Your task to perform on an android device: change the clock display to digital Image 0: 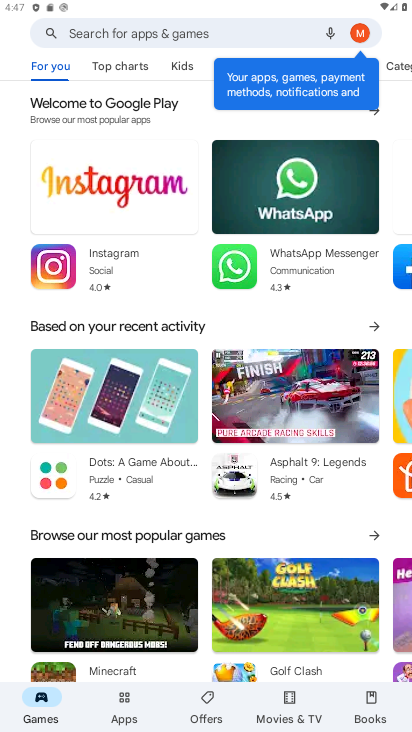
Step 0: press home button
Your task to perform on an android device: change the clock display to digital Image 1: 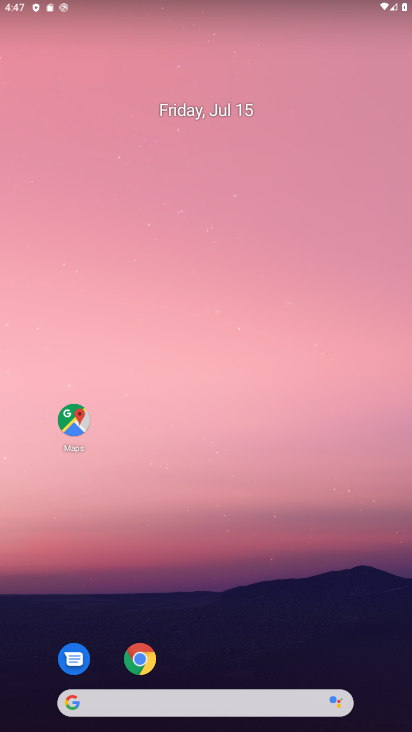
Step 1: drag from (338, 657) to (200, 77)
Your task to perform on an android device: change the clock display to digital Image 2: 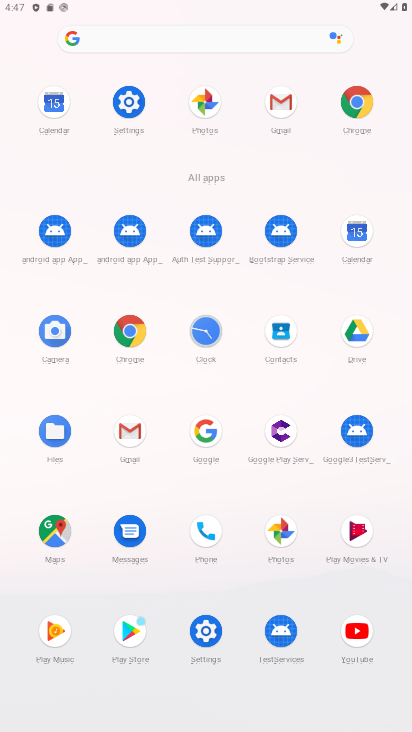
Step 2: click (213, 333)
Your task to perform on an android device: change the clock display to digital Image 3: 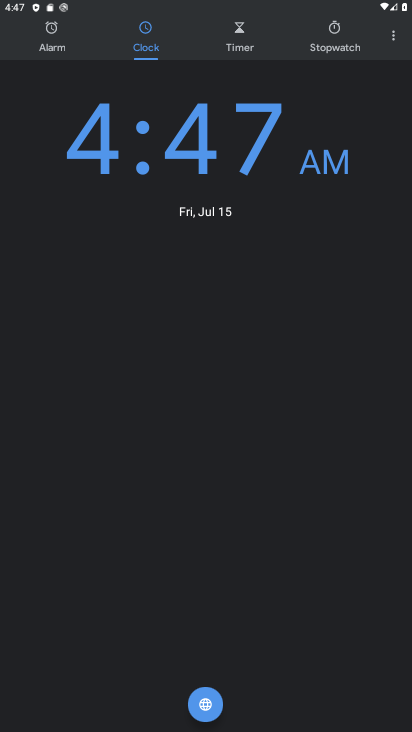
Step 3: click (402, 41)
Your task to perform on an android device: change the clock display to digital Image 4: 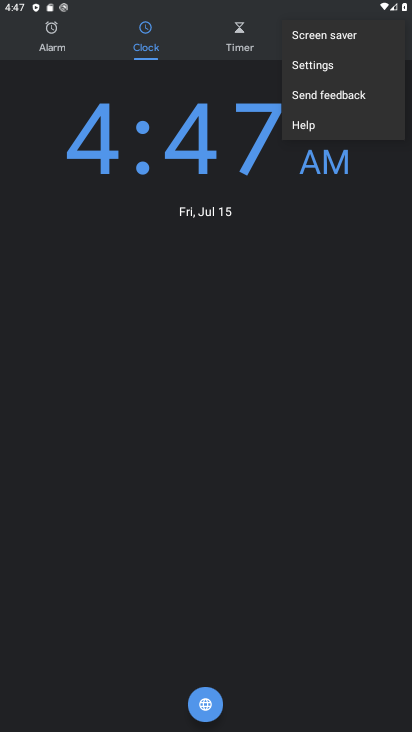
Step 4: click (364, 63)
Your task to perform on an android device: change the clock display to digital Image 5: 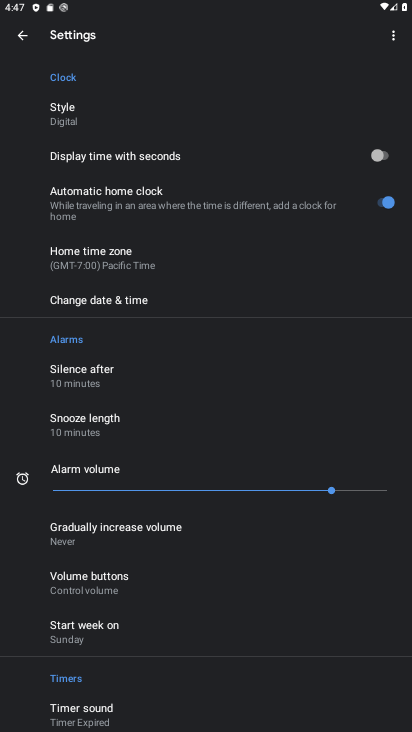
Step 5: click (108, 121)
Your task to perform on an android device: change the clock display to digital Image 6: 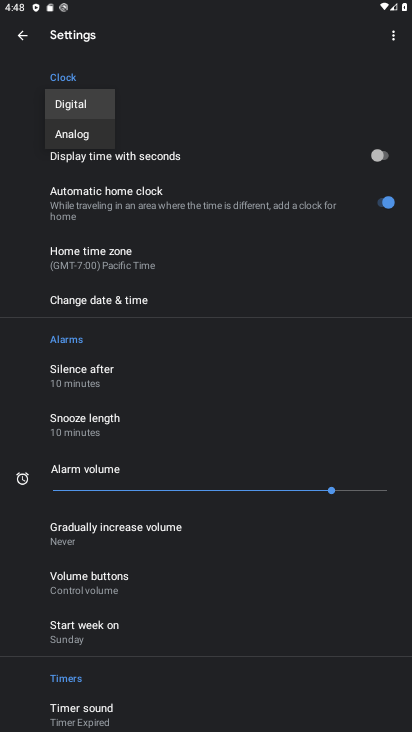
Step 6: task complete